Your task to perform on an android device: change alarm snooze length Image 0: 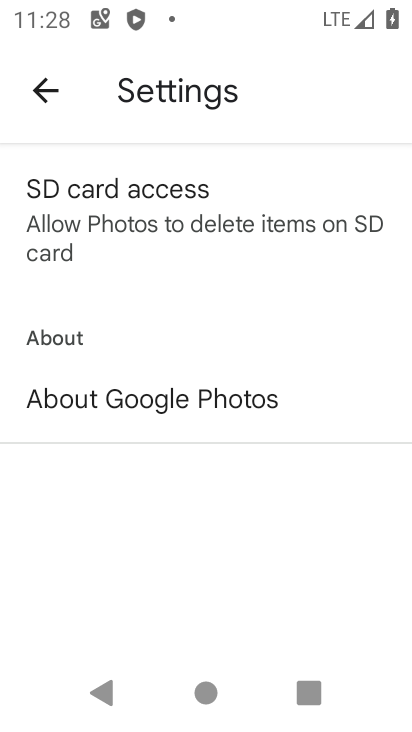
Step 0: press home button
Your task to perform on an android device: change alarm snooze length Image 1: 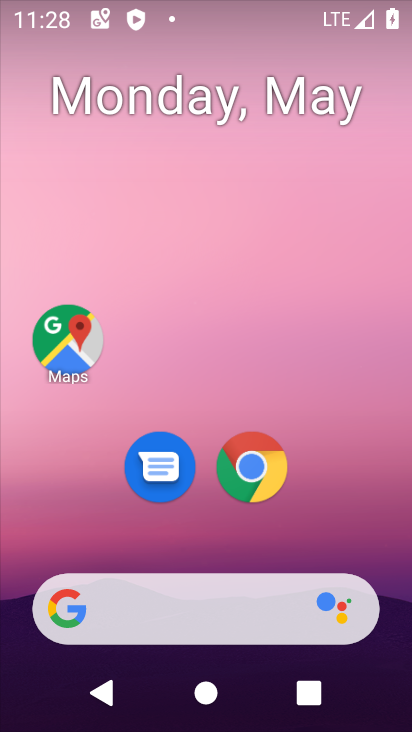
Step 1: drag from (394, 727) to (333, 122)
Your task to perform on an android device: change alarm snooze length Image 2: 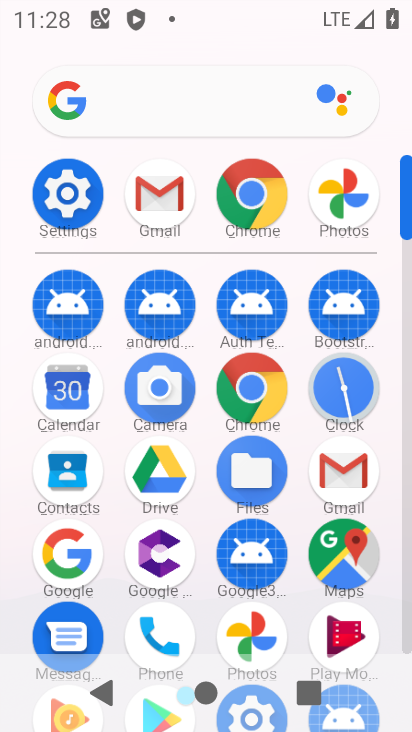
Step 2: click (80, 190)
Your task to perform on an android device: change alarm snooze length Image 3: 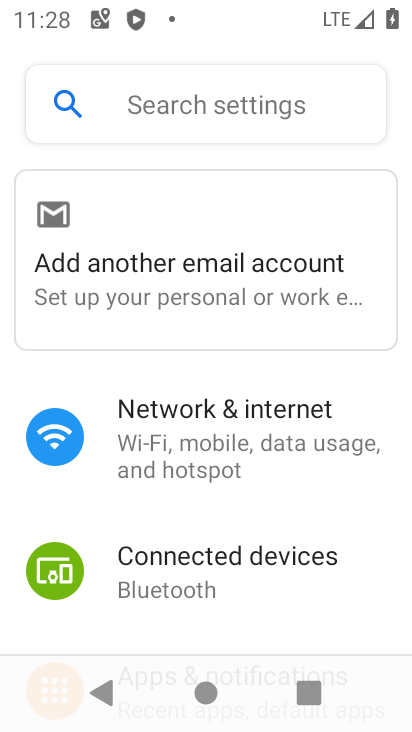
Step 3: drag from (320, 603) to (342, 135)
Your task to perform on an android device: change alarm snooze length Image 4: 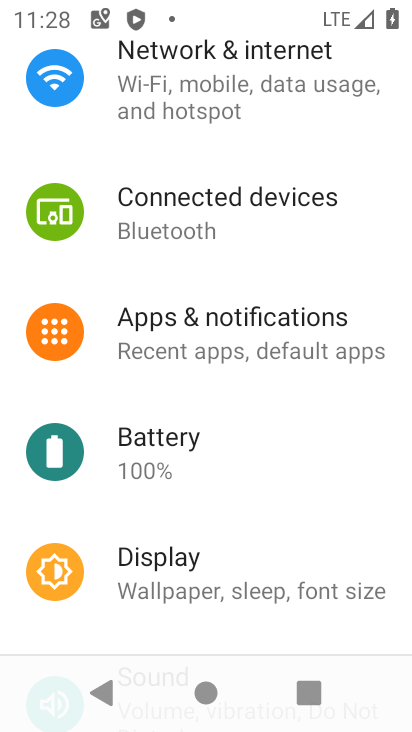
Step 4: drag from (246, 554) to (256, 246)
Your task to perform on an android device: change alarm snooze length Image 5: 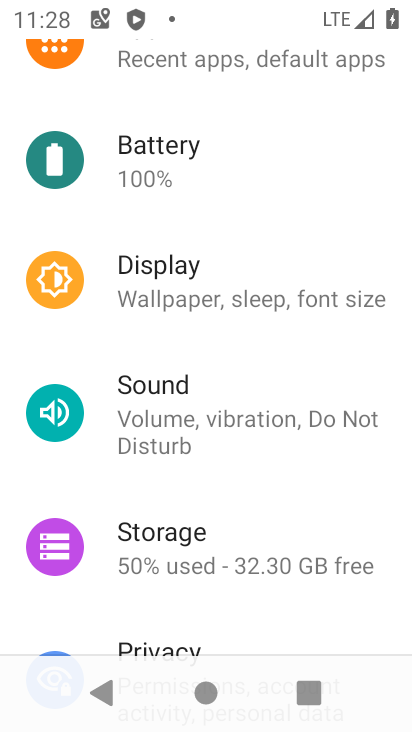
Step 5: press home button
Your task to perform on an android device: change alarm snooze length Image 6: 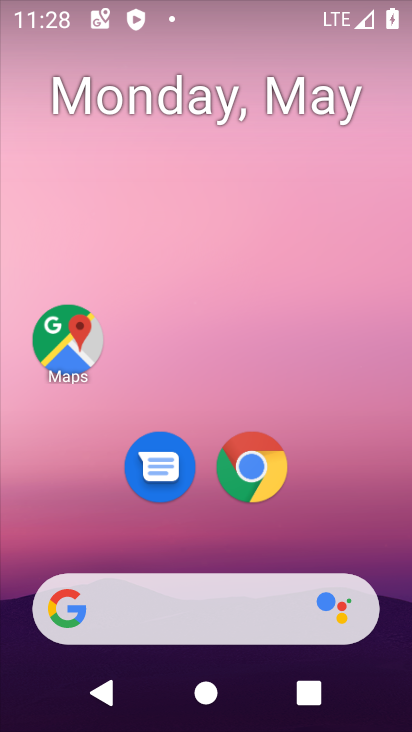
Step 6: drag from (392, 645) to (344, 65)
Your task to perform on an android device: change alarm snooze length Image 7: 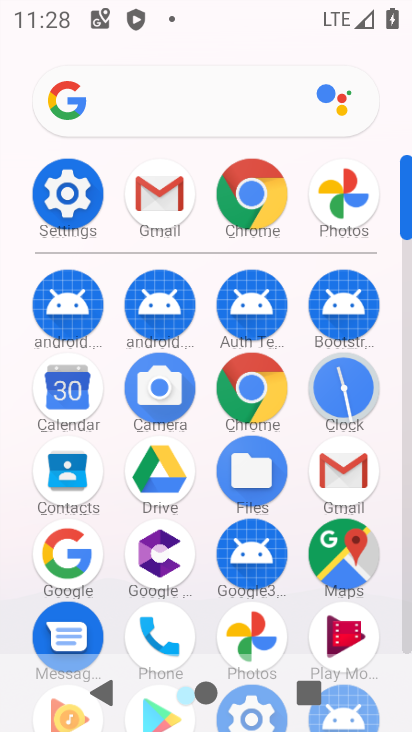
Step 7: click (353, 405)
Your task to perform on an android device: change alarm snooze length Image 8: 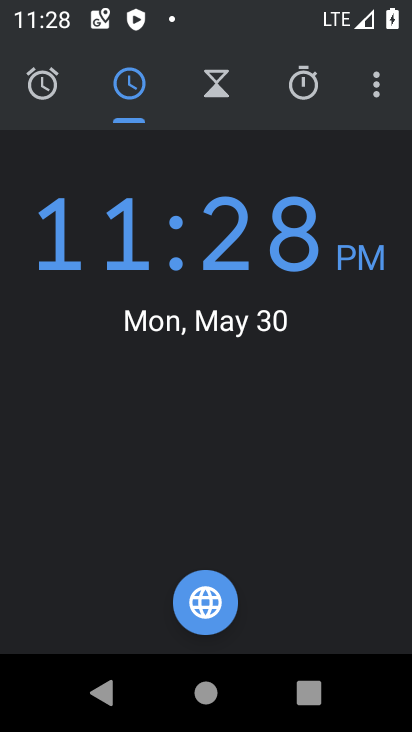
Step 8: click (374, 82)
Your task to perform on an android device: change alarm snooze length Image 9: 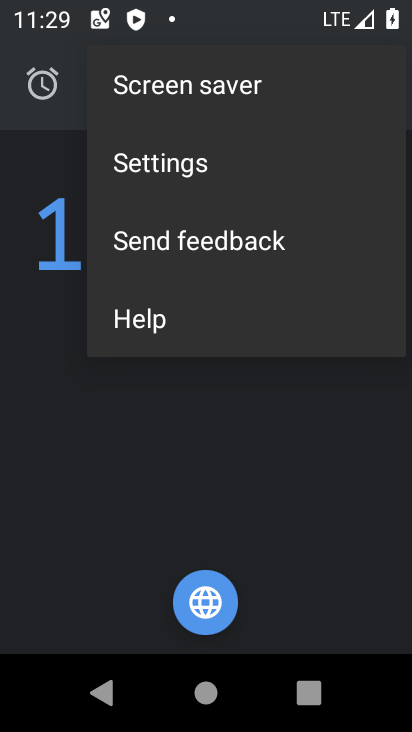
Step 9: click (174, 165)
Your task to perform on an android device: change alarm snooze length Image 10: 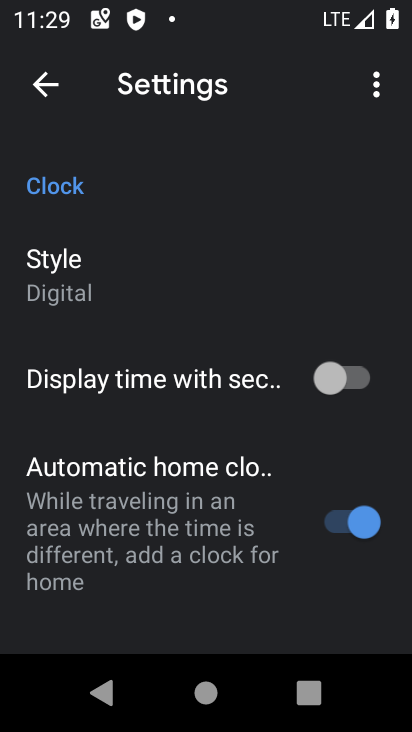
Step 10: drag from (235, 599) to (229, 172)
Your task to perform on an android device: change alarm snooze length Image 11: 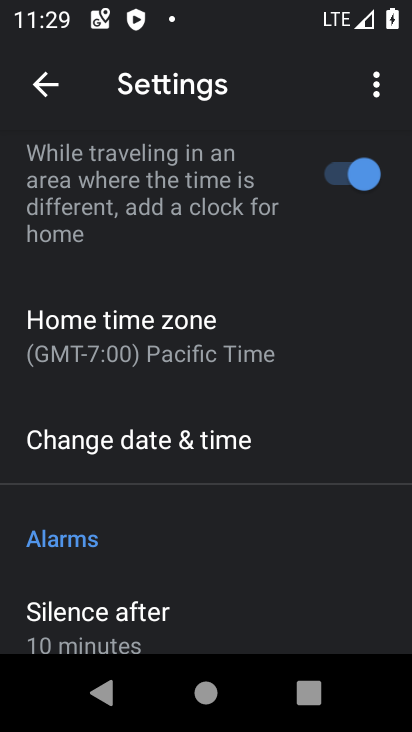
Step 11: drag from (211, 582) to (191, 229)
Your task to perform on an android device: change alarm snooze length Image 12: 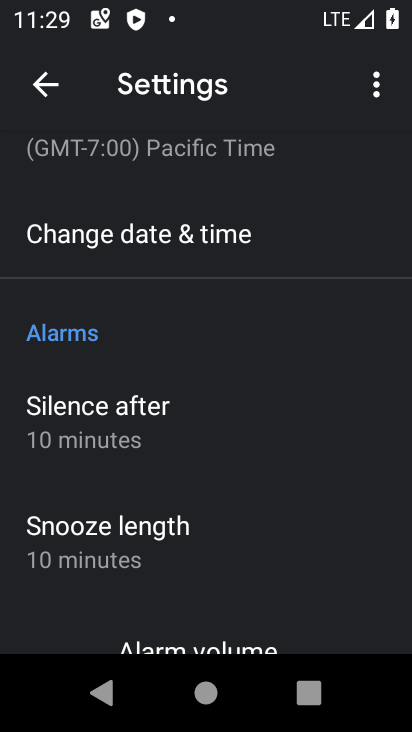
Step 12: click (82, 542)
Your task to perform on an android device: change alarm snooze length Image 13: 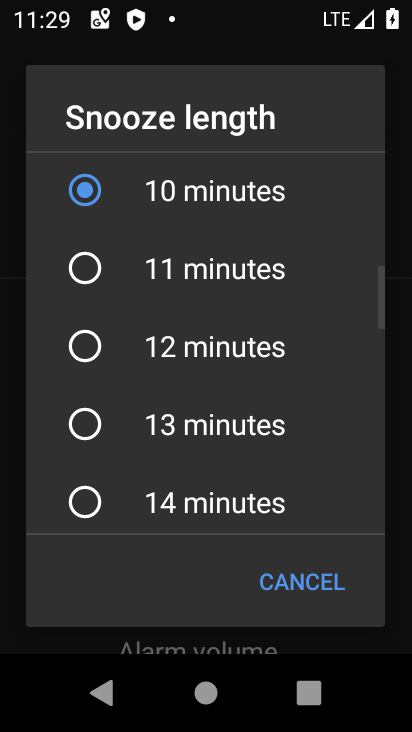
Step 13: click (80, 337)
Your task to perform on an android device: change alarm snooze length Image 14: 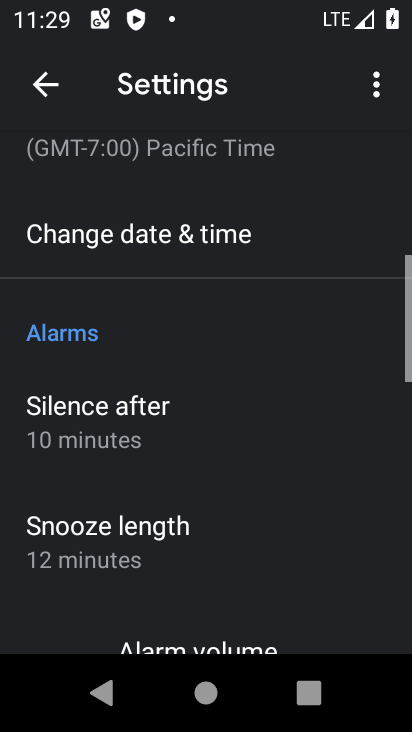
Step 14: task complete